Your task to perform on an android device: Open maps Image 0: 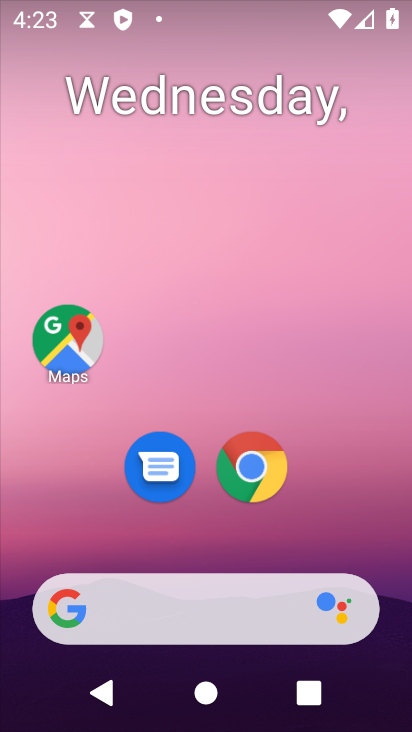
Step 0: drag from (327, 509) to (282, 1)
Your task to perform on an android device: Open maps Image 1: 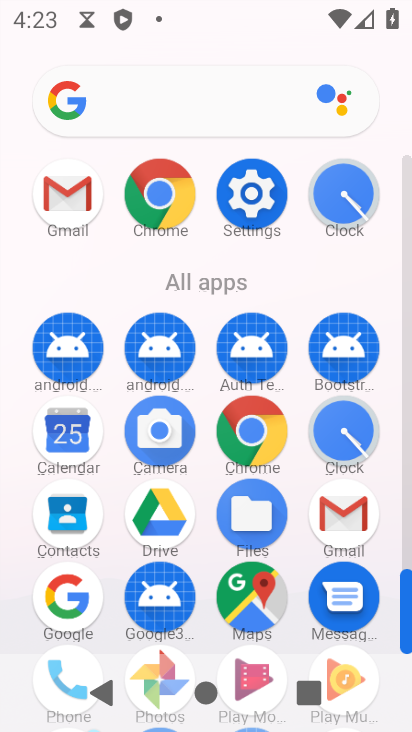
Step 1: drag from (395, 530) to (395, 174)
Your task to perform on an android device: Open maps Image 2: 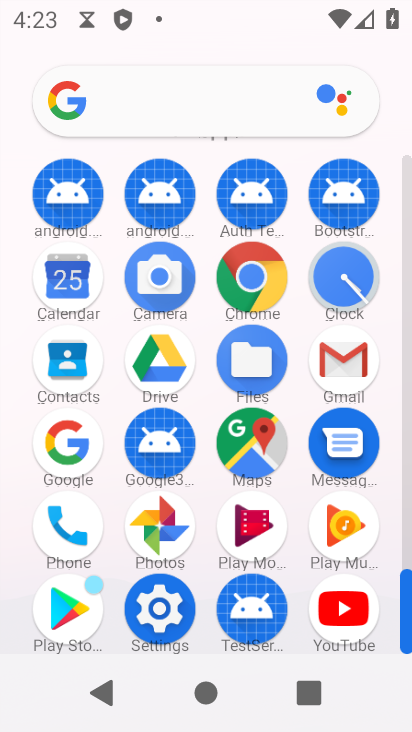
Step 2: click (256, 465)
Your task to perform on an android device: Open maps Image 3: 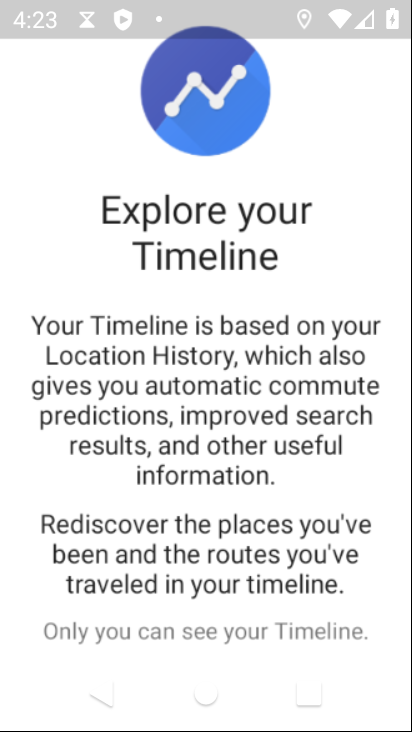
Step 3: task complete